Your task to perform on an android device: turn off javascript in the chrome app Image 0: 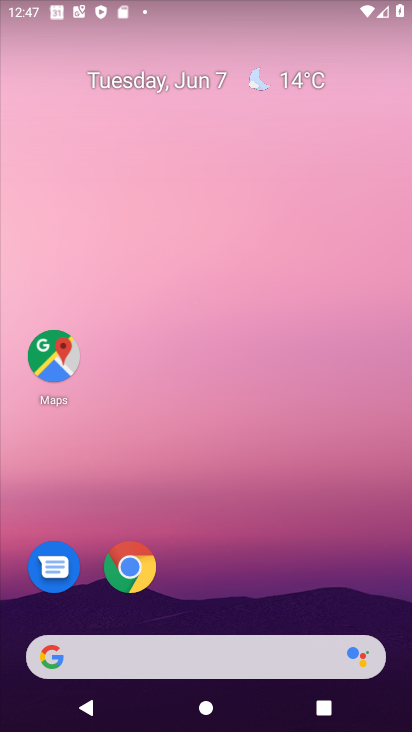
Step 0: click (139, 563)
Your task to perform on an android device: turn off javascript in the chrome app Image 1: 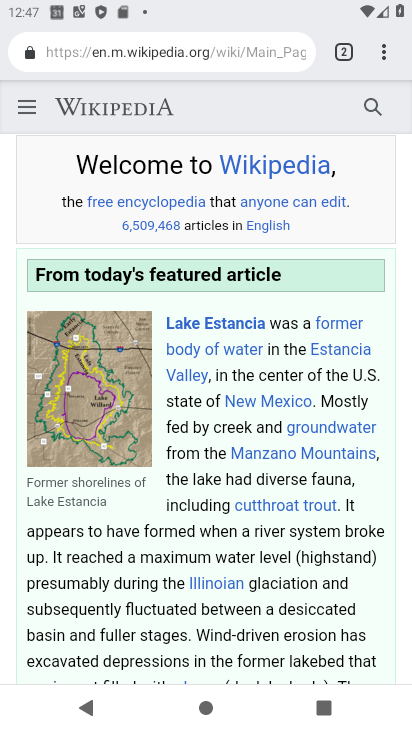
Step 1: click (381, 57)
Your task to perform on an android device: turn off javascript in the chrome app Image 2: 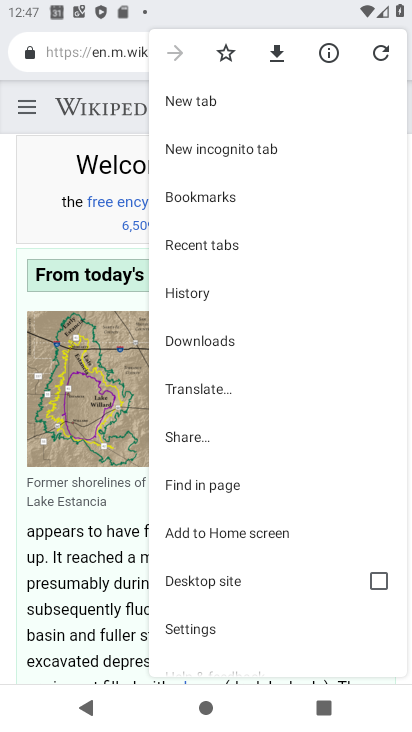
Step 2: click (211, 613)
Your task to perform on an android device: turn off javascript in the chrome app Image 3: 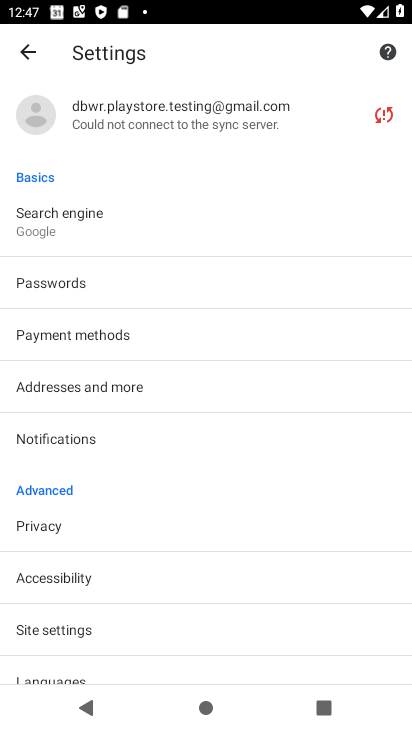
Step 3: click (130, 635)
Your task to perform on an android device: turn off javascript in the chrome app Image 4: 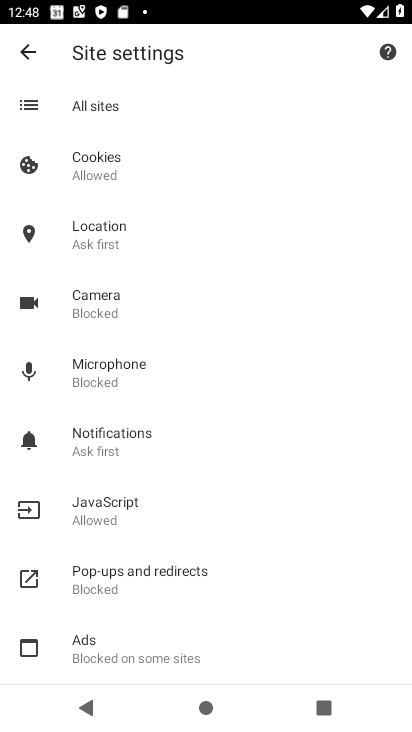
Step 4: click (85, 509)
Your task to perform on an android device: turn off javascript in the chrome app Image 5: 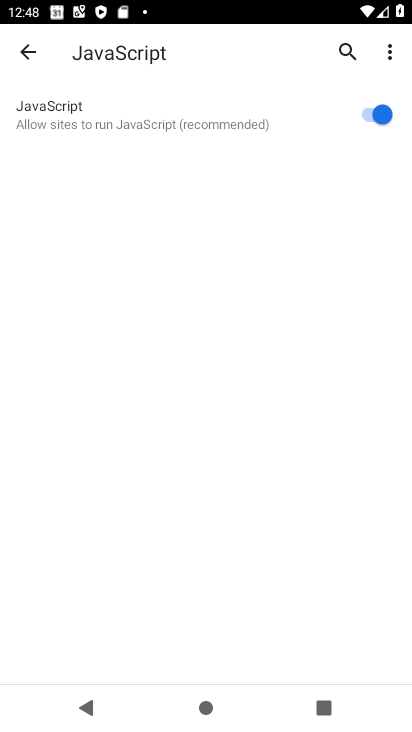
Step 5: click (384, 108)
Your task to perform on an android device: turn off javascript in the chrome app Image 6: 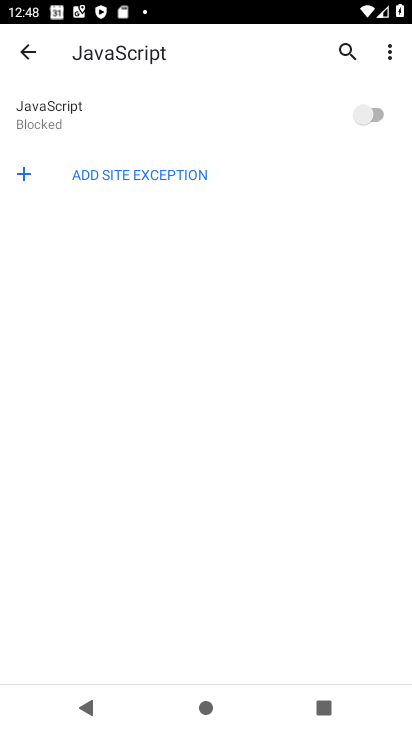
Step 6: task complete